Your task to perform on an android device: turn off sleep mode Image 0: 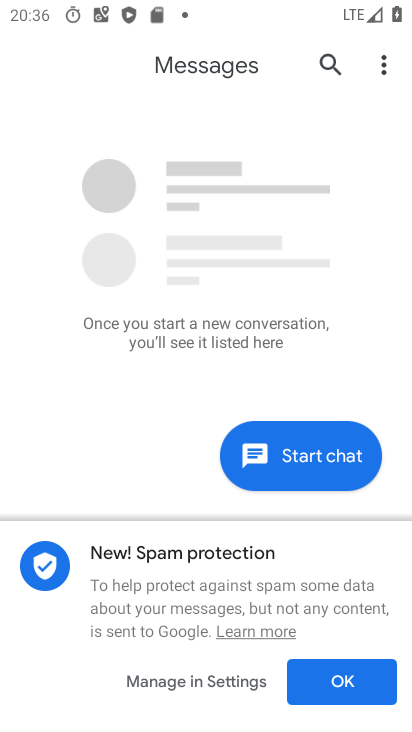
Step 0: drag from (225, 12) to (242, 439)
Your task to perform on an android device: turn off sleep mode Image 1: 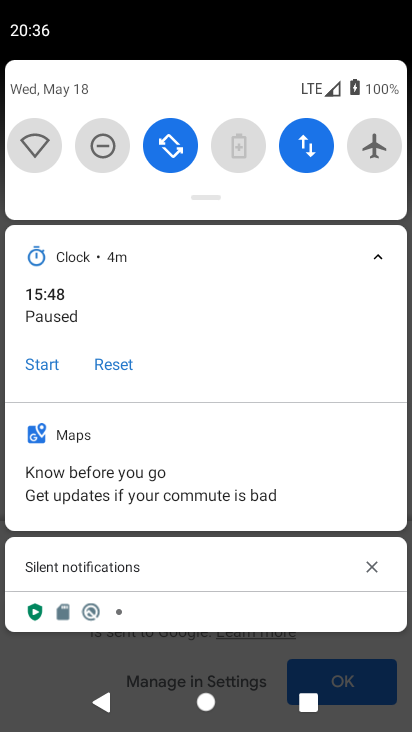
Step 1: drag from (206, 111) to (216, 490)
Your task to perform on an android device: turn off sleep mode Image 2: 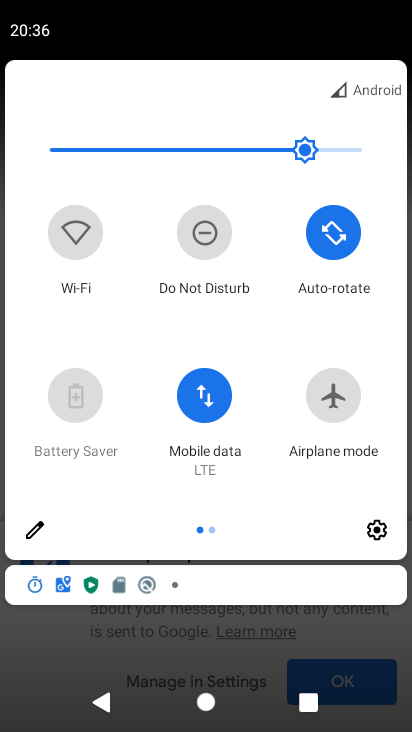
Step 2: click (376, 518)
Your task to perform on an android device: turn off sleep mode Image 3: 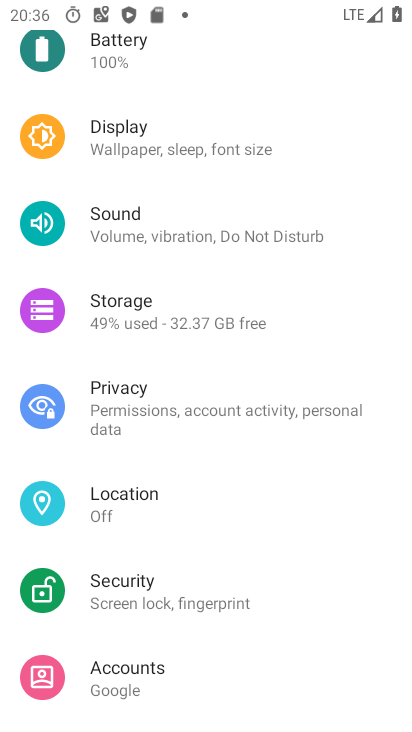
Step 3: task complete